Your task to perform on an android device: Toggle the flashlight Image 0: 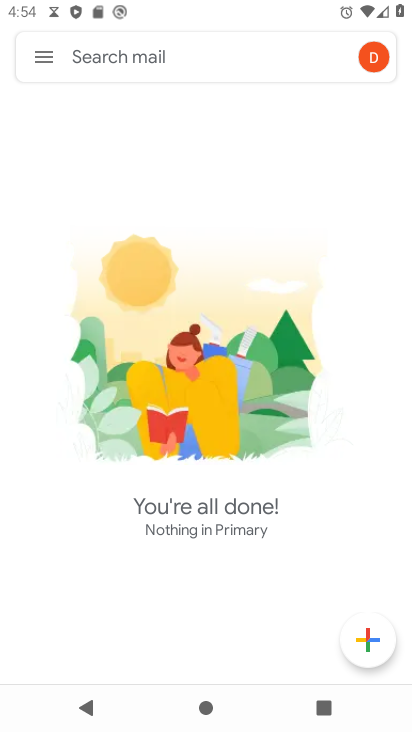
Step 0: press home button
Your task to perform on an android device: Toggle the flashlight Image 1: 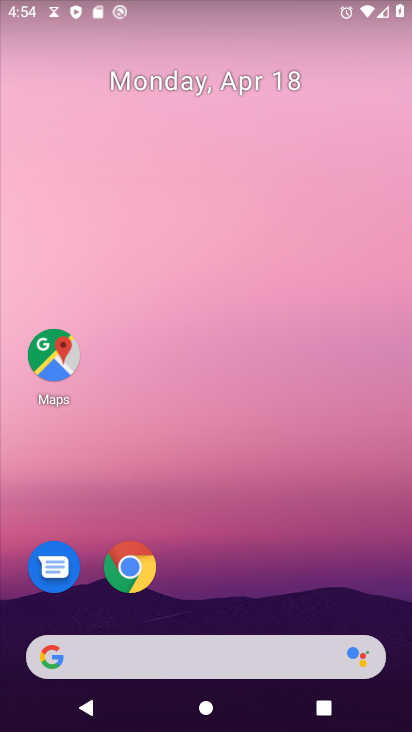
Step 1: drag from (223, 599) to (245, 120)
Your task to perform on an android device: Toggle the flashlight Image 2: 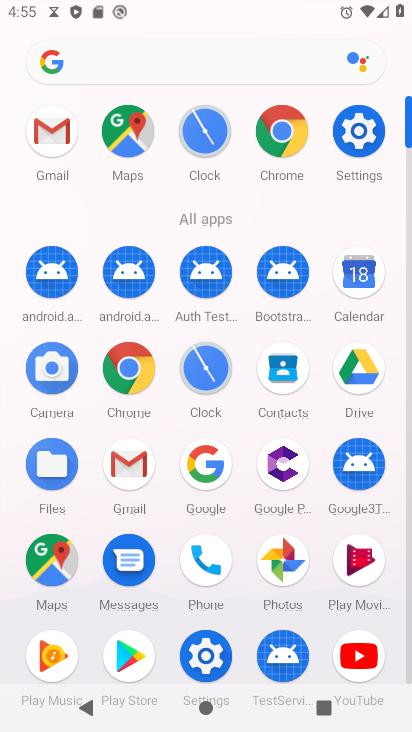
Step 2: click (362, 135)
Your task to perform on an android device: Toggle the flashlight Image 3: 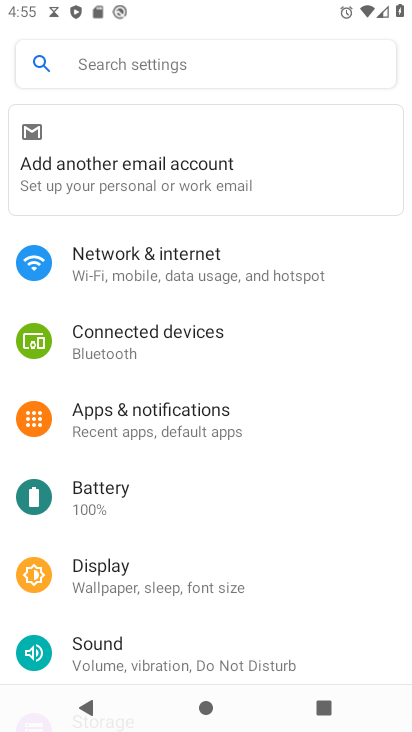
Step 3: drag from (142, 501) to (189, 398)
Your task to perform on an android device: Toggle the flashlight Image 4: 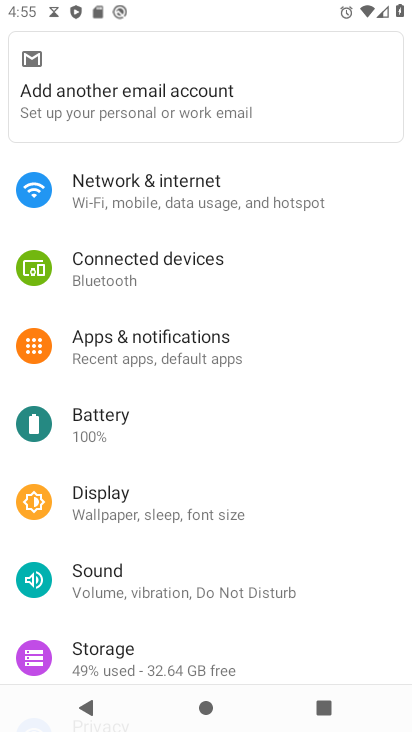
Step 4: drag from (186, 504) to (198, 422)
Your task to perform on an android device: Toggle the flashlight Image 5: 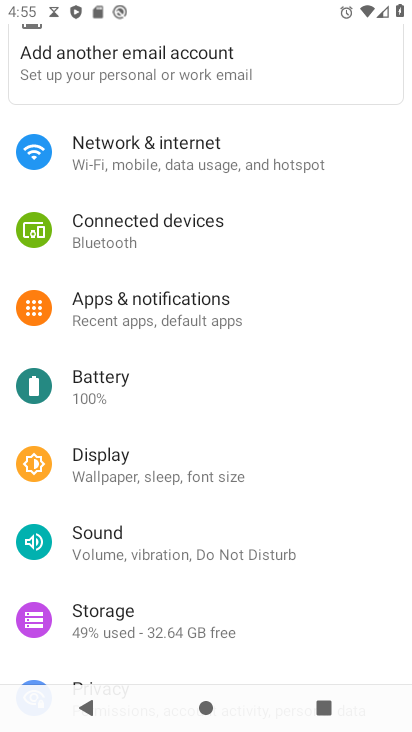
Step 5: click (191, 483)
Your task to perform on an android device: Toggle the flashlight Image 6: 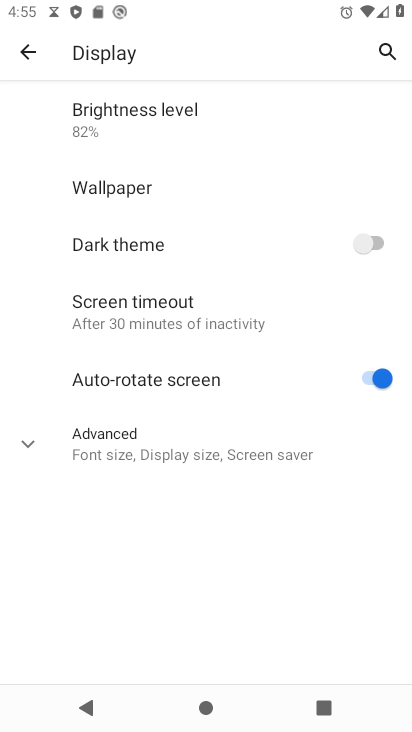
Step 6: click (210, 456)
Your task to perform on an android device: Toggle the flashlight Image 7: 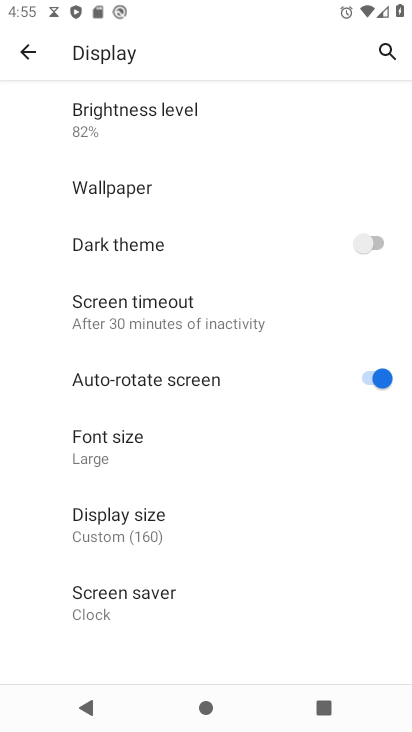
Step 7: press back button
Your task to perform on an android device: Toggle the flashlight Image 8: 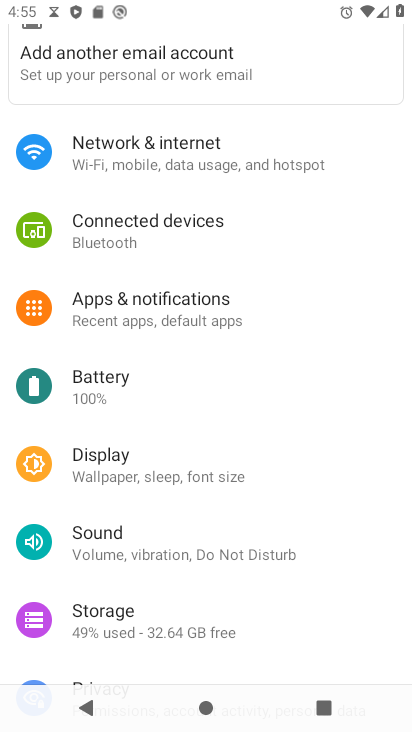
Step 8: drag from (171, 548) to (194, 437)
Your task to perform on an android device: Toggle the flashlight Image 9: 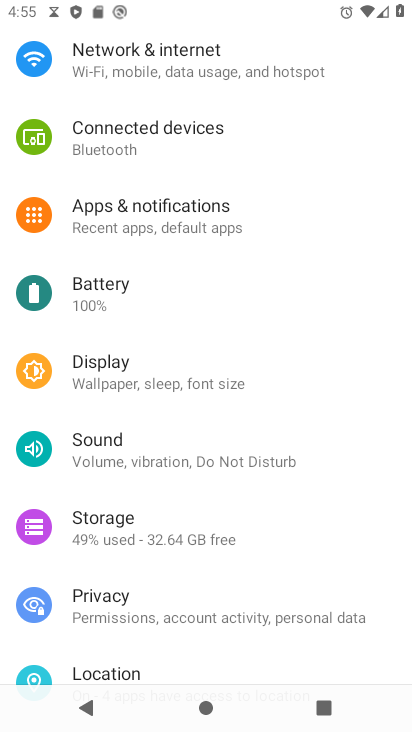
Step 9: drag from (193, 515) to (198, 440)
Your task to perform on an android device: Toggle the flashlight Image 10: 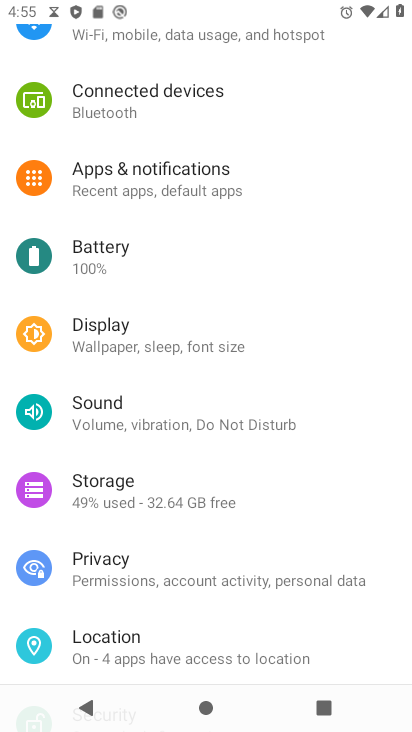
Step 10: drag from (151, 529) to (179, 429)
Your task to perform on an android device: Toggle the flashlight Image 11: 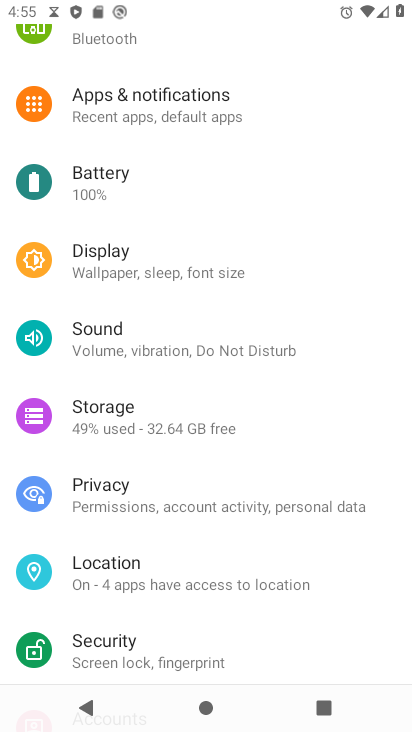
Step 11: drag from (167, 480) to (203, 368)
Your task to perform on an android device: Toggle the flashlight Image 12: 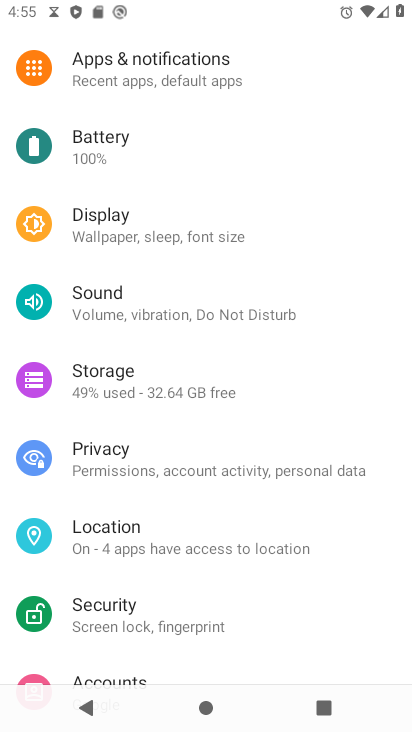
Step 12: drag from (187, 589) to (231, 422)
Your task to perform on an android device: Toggle the flashlight Image 13: 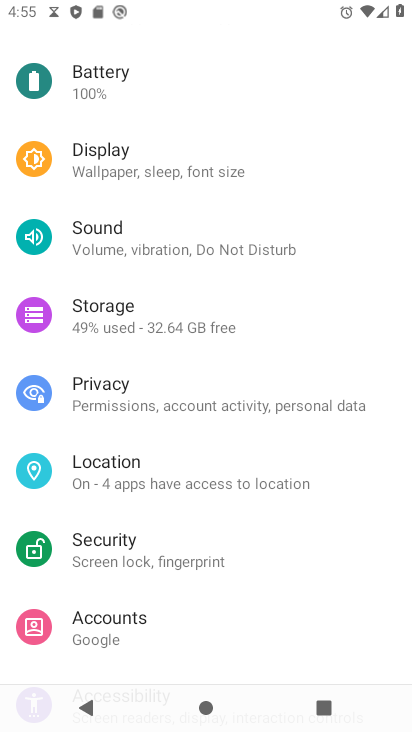
Step 13: drag from (178, 606) to (231, 462)
Your task to perform on an android device: Toggle the flashlight Image 14: 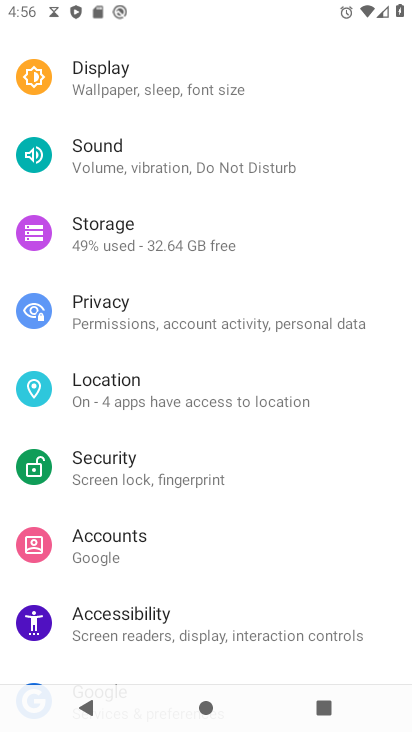
Step 14: click (161, 635)
Your task to perform on an android device: Toggle the flashlight Image 15: 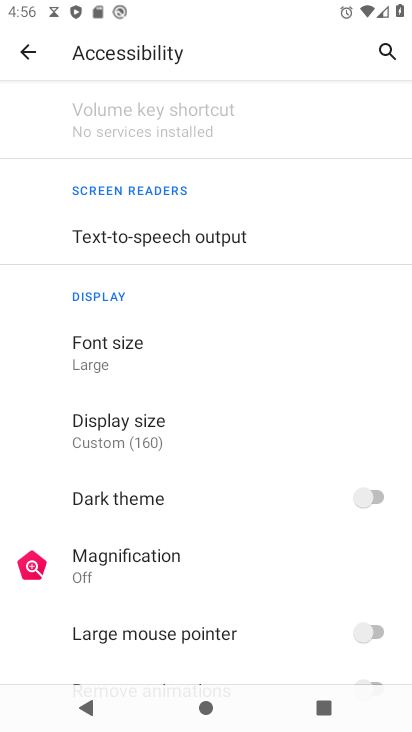
Step 15: task complete